Your task to perform on an android device: toggle sleep mode Image 0: 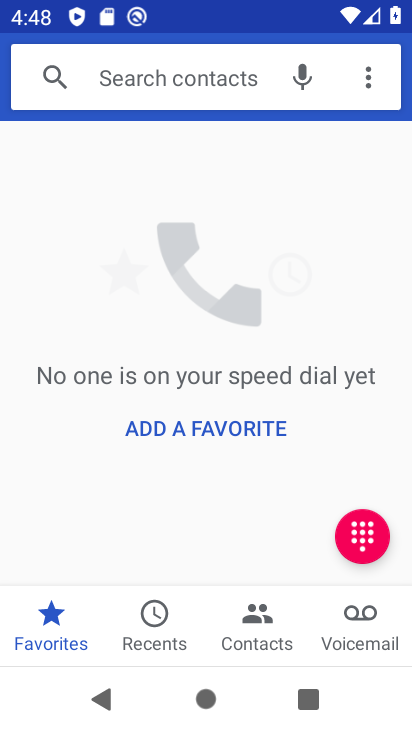
Step 0: press home button
Your task to perform on an android device: toggle sleep mode Image 1: 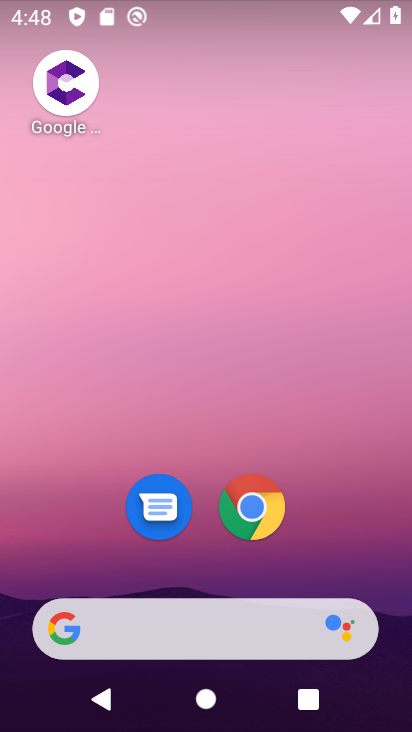
Step 1: drag from (24, 654) to (302, 191)
Your task to perform on an android device: toggle sleep mode Image 2: 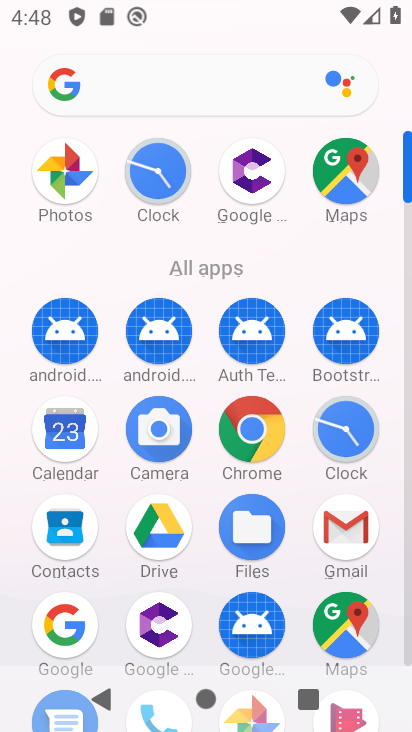
Step 2: drag from (70, 504) to (287, 133)
Your task to perform on an android device: toggle sleep mode Image 3: 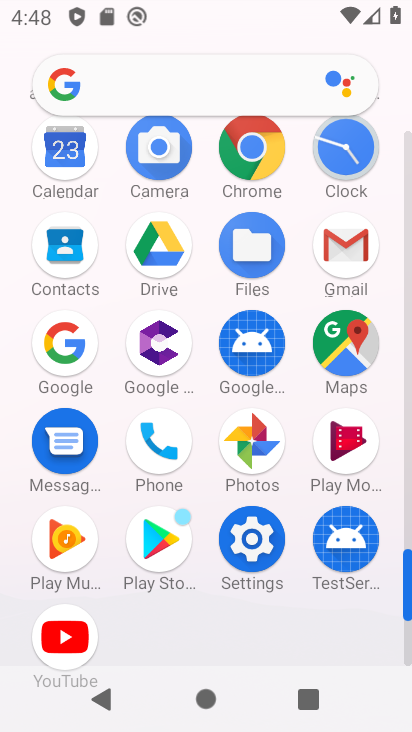
Step 3: click (249, 571)
Your task to perform on an android device: toggle sleep mode Image 4: 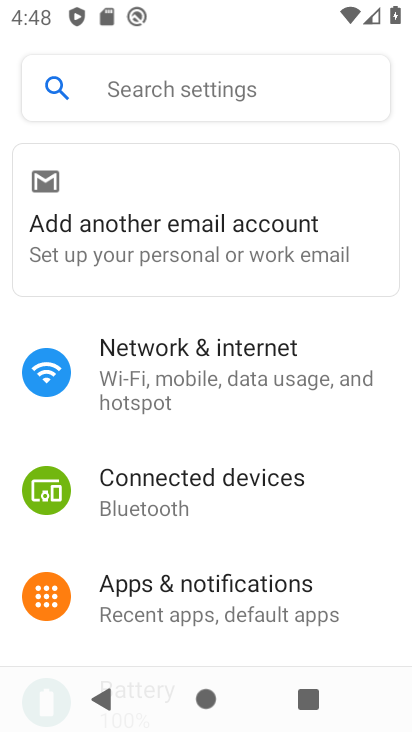
Step 4: drag from (28, 535) to (252, 231)
Your task to perform on an android device: toggle sleep mode Image 5: 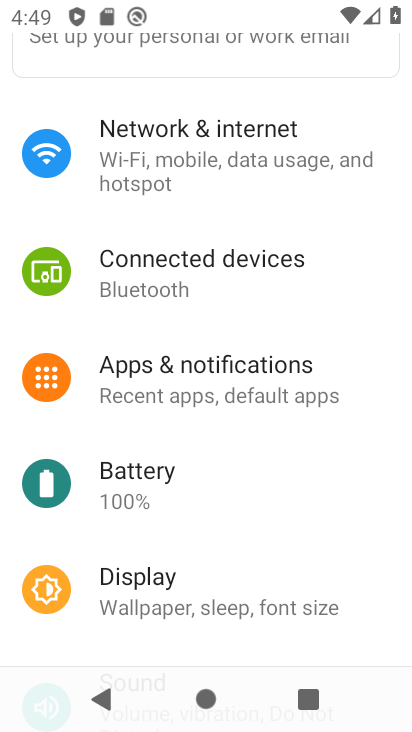
Step 5: click (203, 593)
Your task to perform on an android device: toggle sleep mode Image 6: 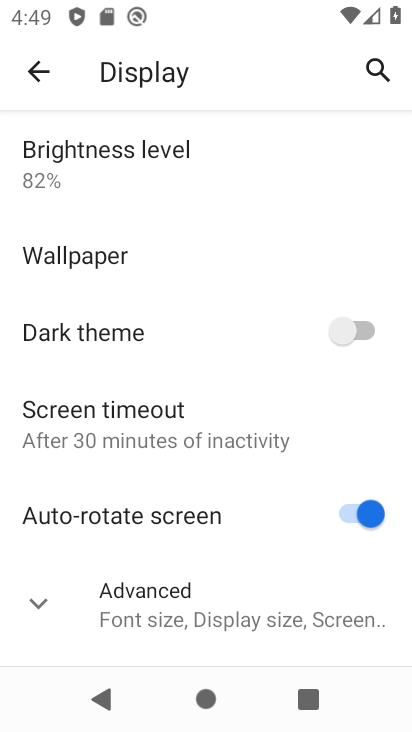
Step 6: task complete